Your task to perform on an android device: uninstall "Google Pay: Save, Pay, Manage" Image 0: 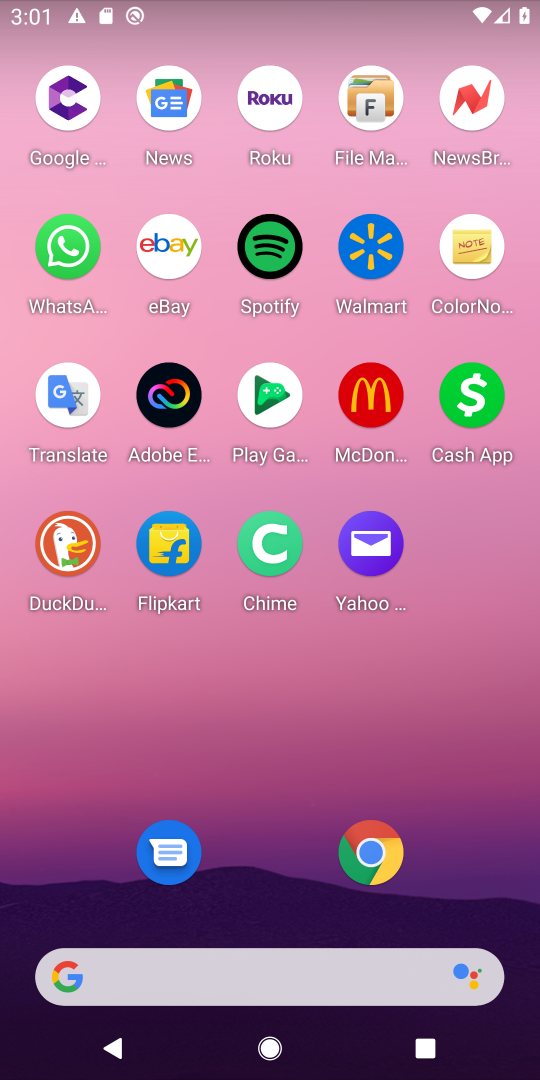
Step 0: drag from (266, 920) to (273, 10)
Your task to perform on an android device: uninstall "Google Pay: Save, Pay, Manage" Image 1: 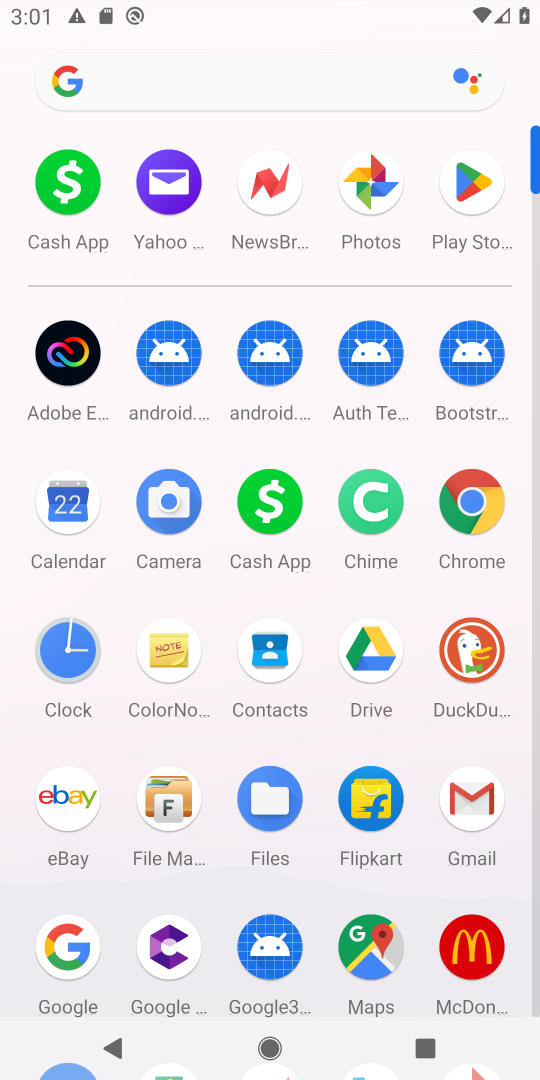
Step 1: click (474, 191)
Your task to perform on an android device: uninstall "Google Pay: Save, Pay, Manage" Image 2: 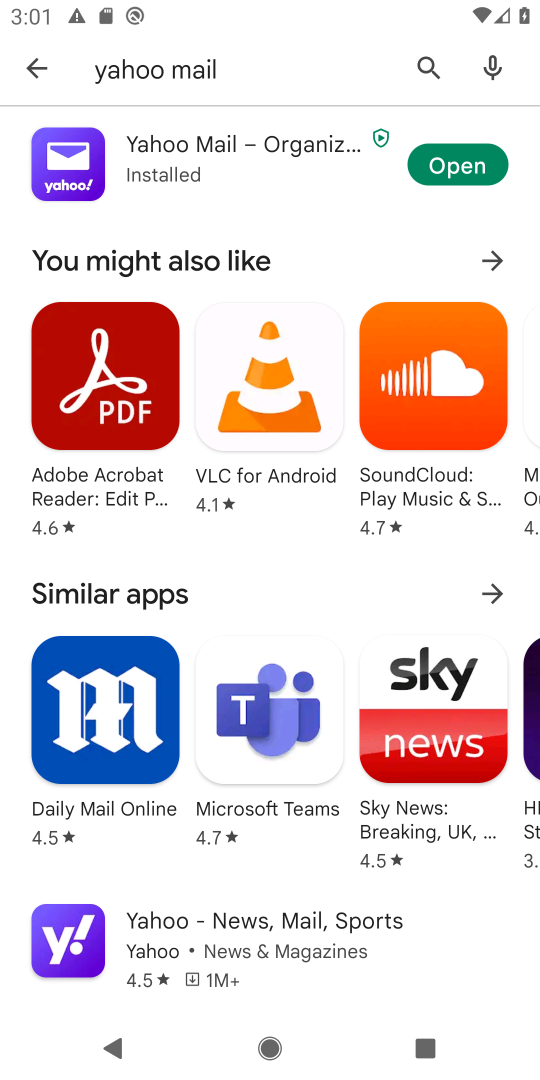
Step 2: click (426, 60)
Your task to perform on an android device: uninstall "Google Pay: Save, Pay, Manage" Image 3: 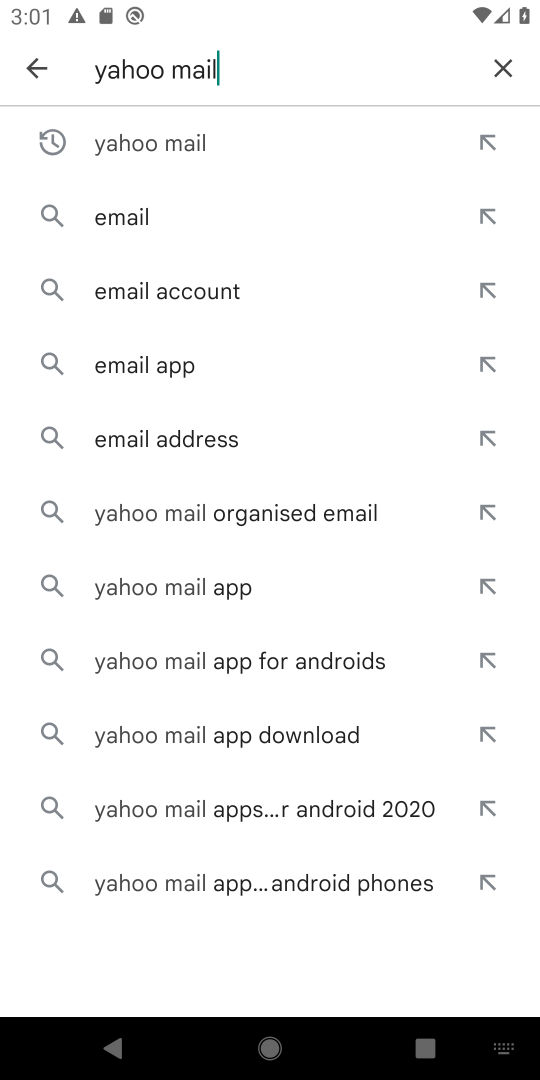
Step 3: click (502, 66)
Your task to perform on an android device: uninstall "Google Pay: Save, Pay, Manage" Image 4: 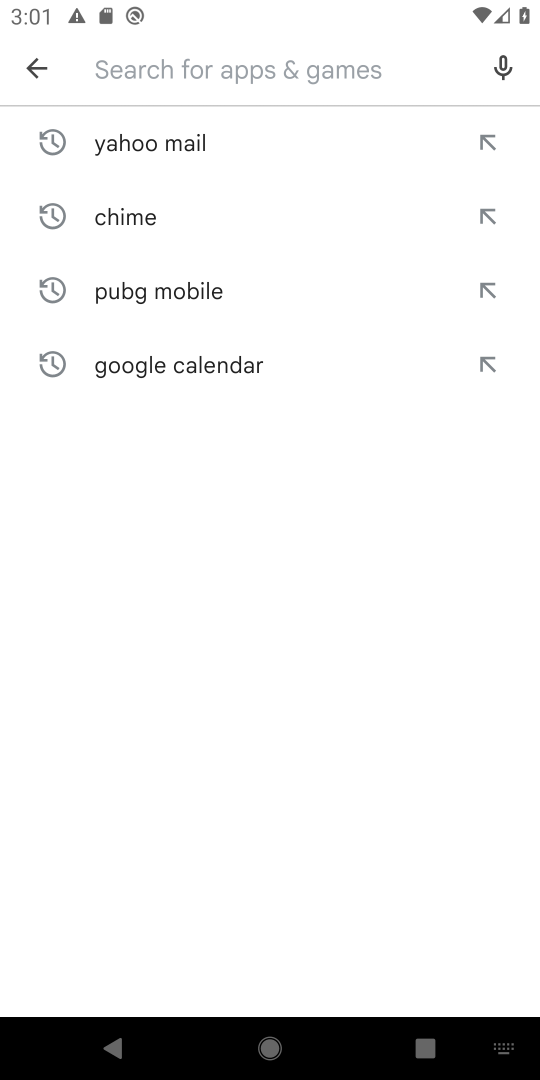
Step 4: type "Google Pay: Save, Pay, Manag"
Your task to perform on an android device: uninstall "Google Pay: Save, Pay, Manage" Image 5: 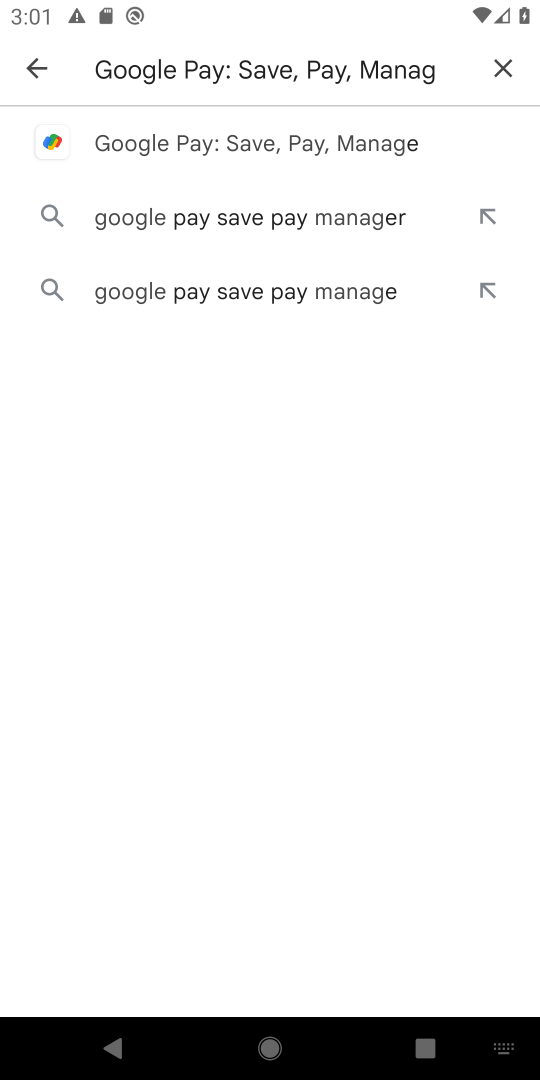
Step 5: click (263, 143)
Your task to perform on an android device: uninstall "Google Pay: Save, Pay, Manage" Image 6: 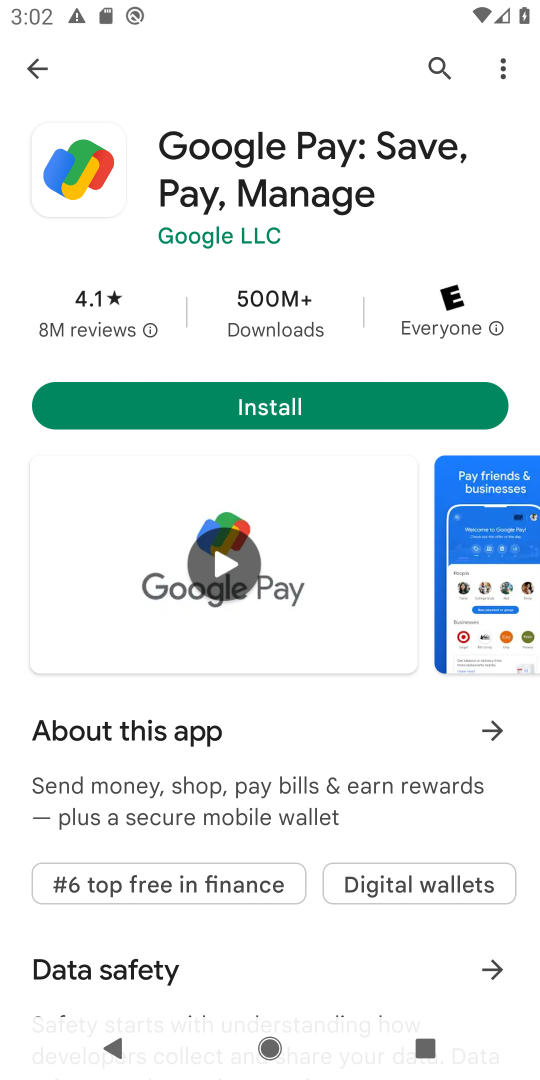
Step 6: task complete